Your task to perform on an android device: open a new tab in the chrome app Image 0: 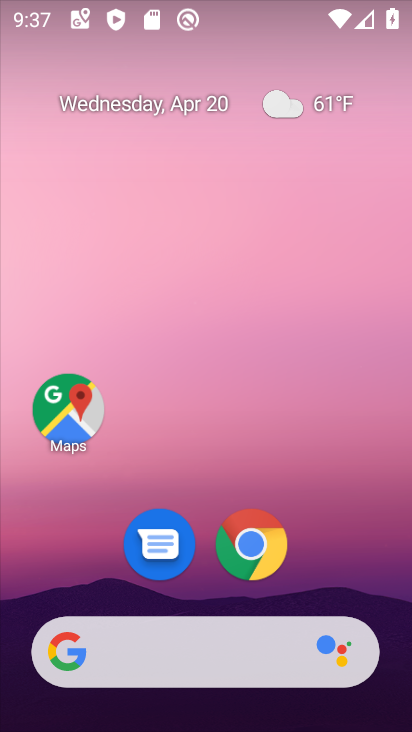
Step 0: click (257, 549)
Your task to perform on an android device: open a new tab in the chrome app Image 1: 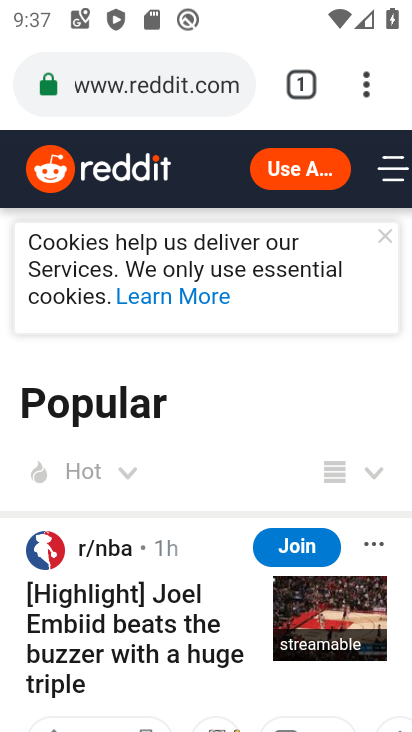
Step 1: click (366, 94)
Your task to perform on an android device: open a new tab in the chrome app Image 2: 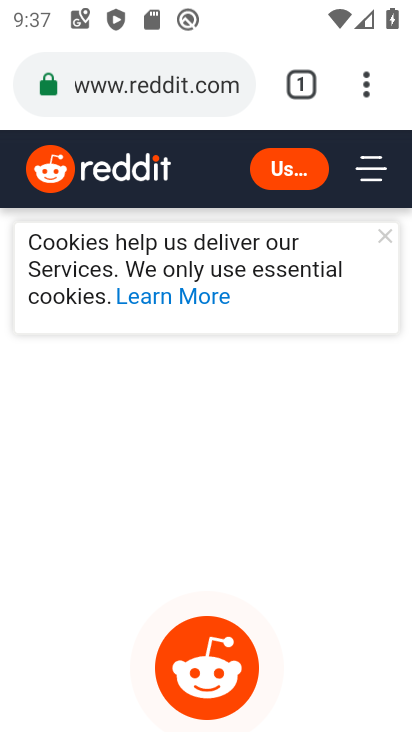
Step 2: click (368, 105)
Your task to perform on an android device: open a new tab in the chrome app Image 3: 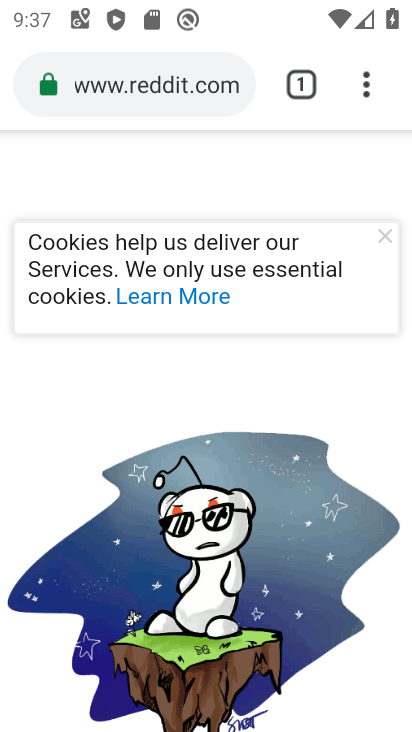
Step 3: click (368, 88)
Your task to perform on an android device: open a new tab in the chrome app Image 4: 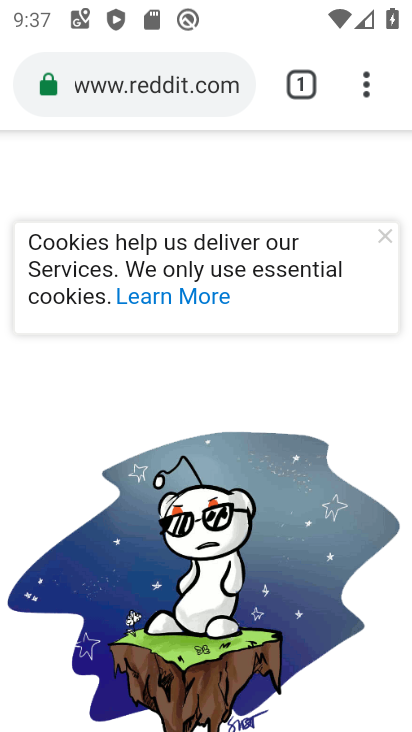
Step 4: click (273, 79)
Your task to perform on an android device: open a new tab in the chrome app Image 5: 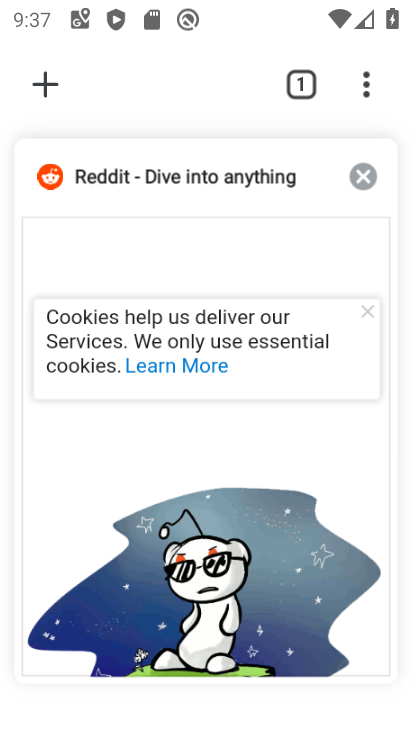
Step 5: click (36, 95)
Your task to perform on an android device: open a new tab in the chrome app Image 6: 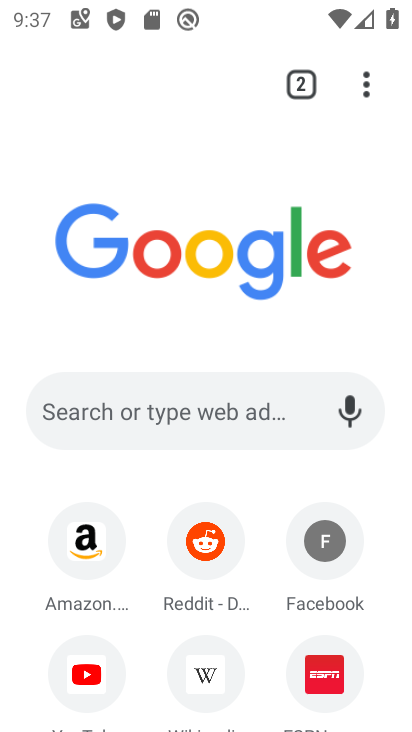
Step 6: task complete